Your task to perform on an android device: turn on showing notifications on the lock screen Image 0: 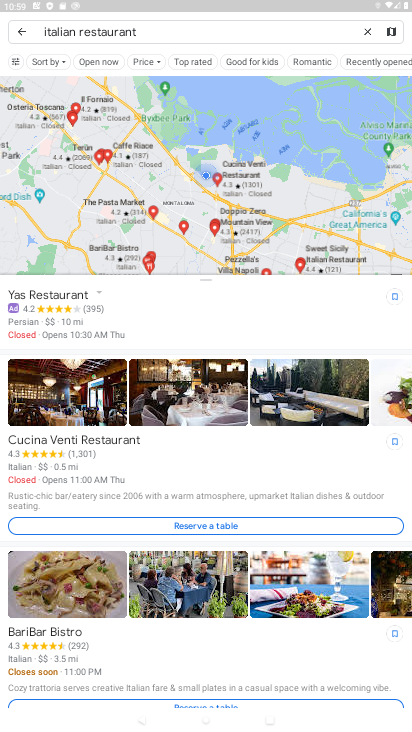
Step 0: press home button
Your task to perform on an android device: turn on showing notifications on the lock screen Image 1: 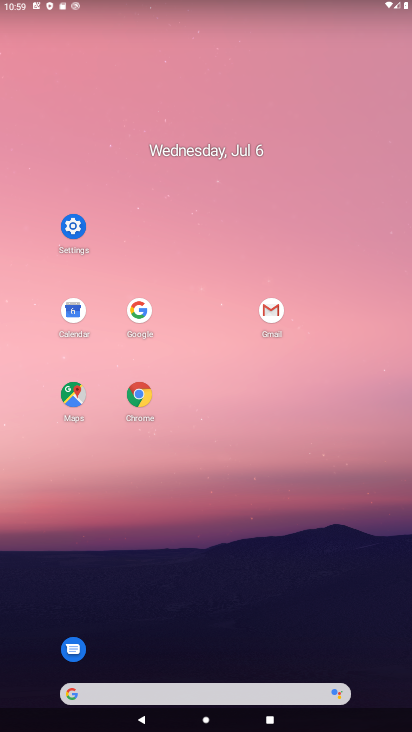
Step 1: click (76, 235)
Your task to perform on an android device: turn on showing notifications on the lock screen Image 2: 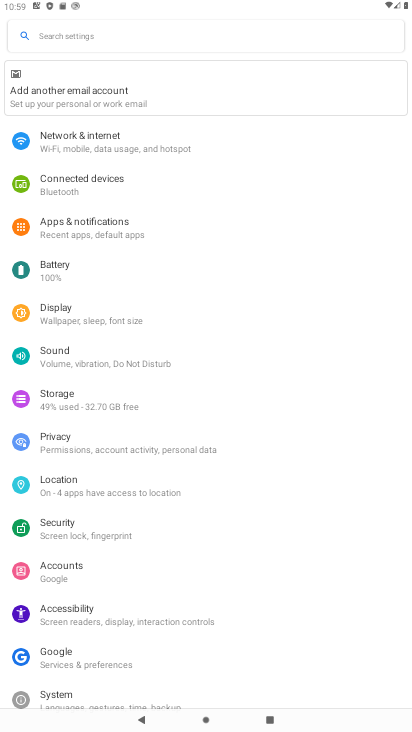
Step 2: click (88, 235)
Your task to perform on an android device: turn on showing notifications on the lock screen Image 3: 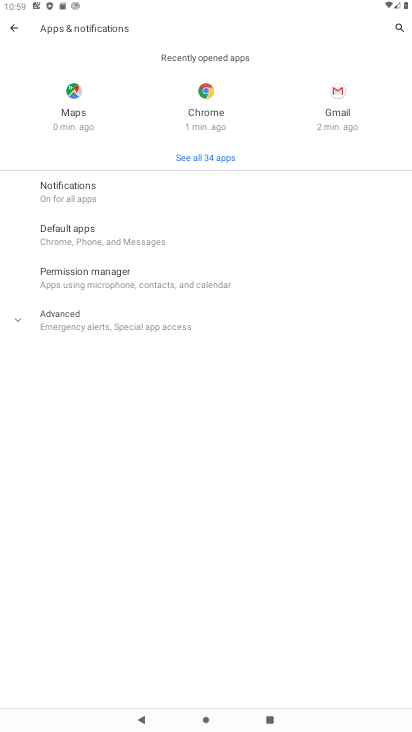
Step 3: click (103, 330)
Your task to perform on an android device: turn on showing notifications on the lock screen Image 4: 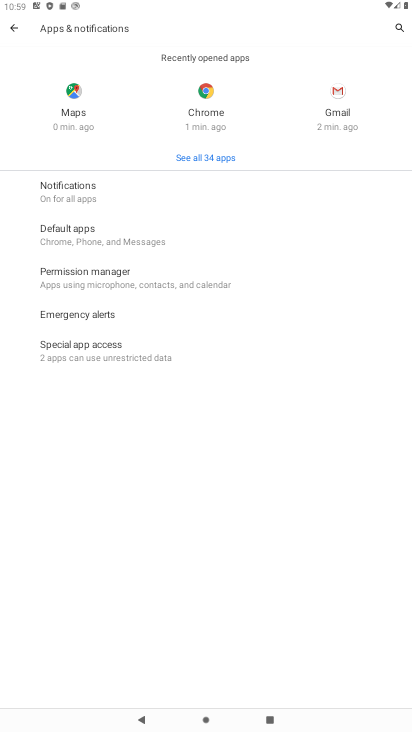
Step 4: click (80, 177)
Your task to perform on an android device: turn on showing notifications on the lock screen Image 5: 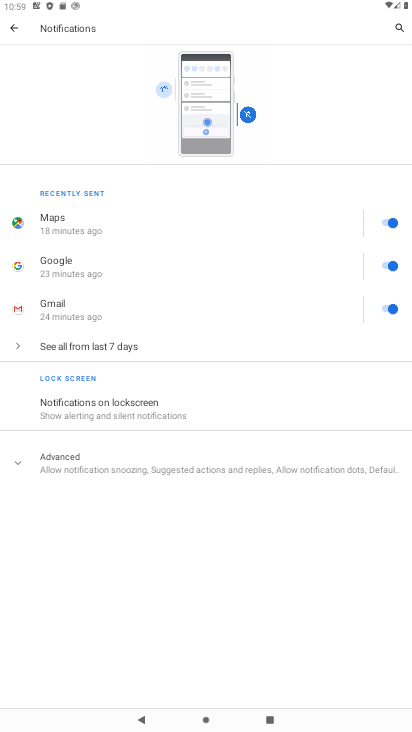
Step 5: click (120, 468)
Your task to perform on an android device: turn on showing notifications on the lock screen Image 6: 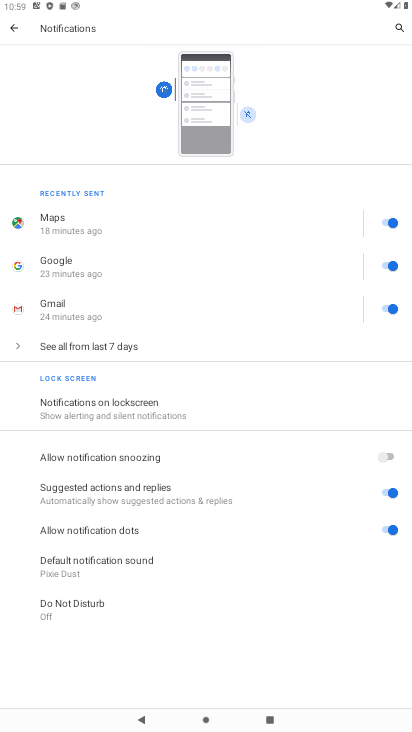
Step 6: click (131, 417)
Your task to perform on an android device: turn on showing notifications on the lock screen Image 7: 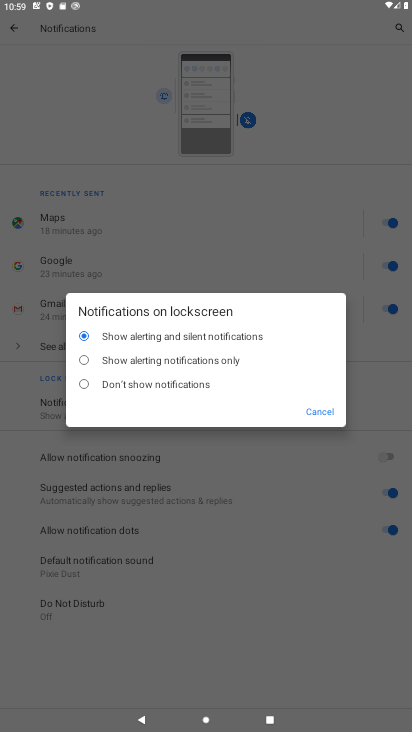
Step 7: task complete